Your task to perform on an android device: turn off location history Image 0: 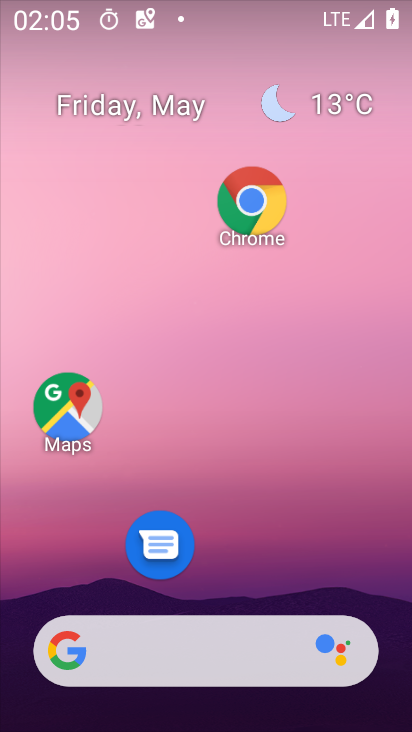
Step 0: drag from (241, 479) to (224, 14)
Your task to perform on an android device: turn off location history Image 1: 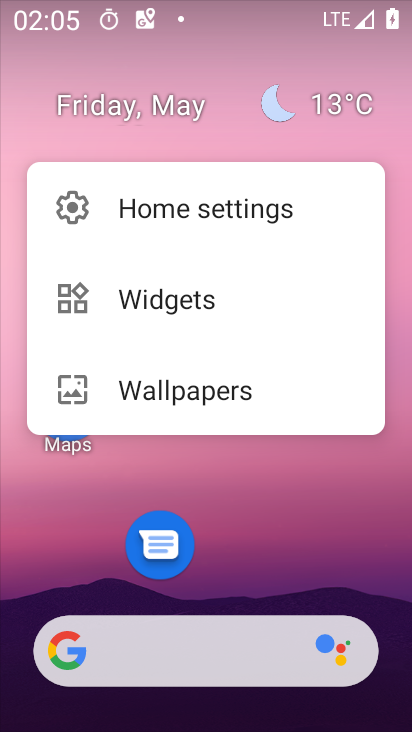
Step 1: click (210, 499)
Your task to perform on an android device: turn off location history Image 2: 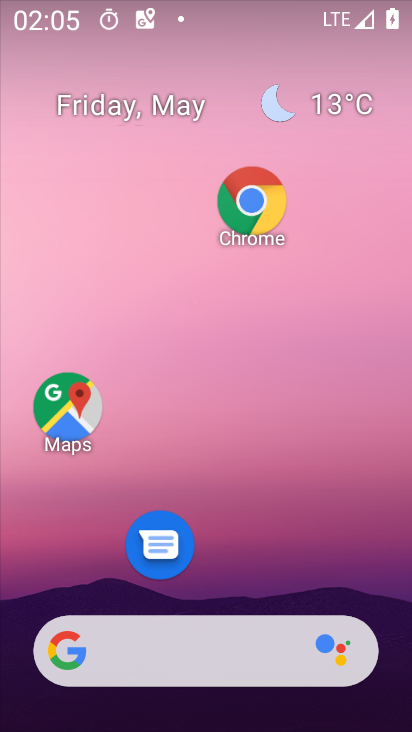
Step 2: drag from (229, 397) to (264, 140)
Your task to perform on an android device: turn off location history Image 3: 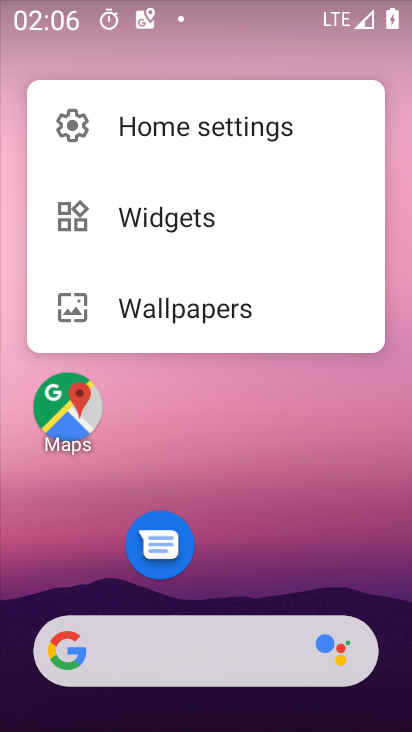
Step 3: click (265, 491)
Your task to perform on an android device: turn off location history Image 4: 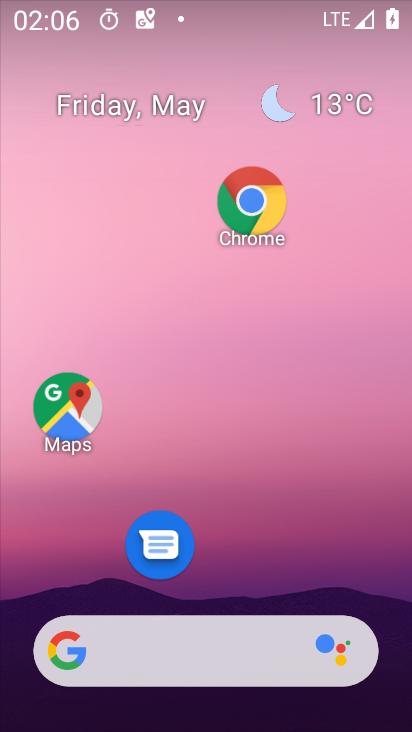
Step 4: drag from (237, 359) to (252, 179)
Your task to perform on an android device: turn off location history Image 5: 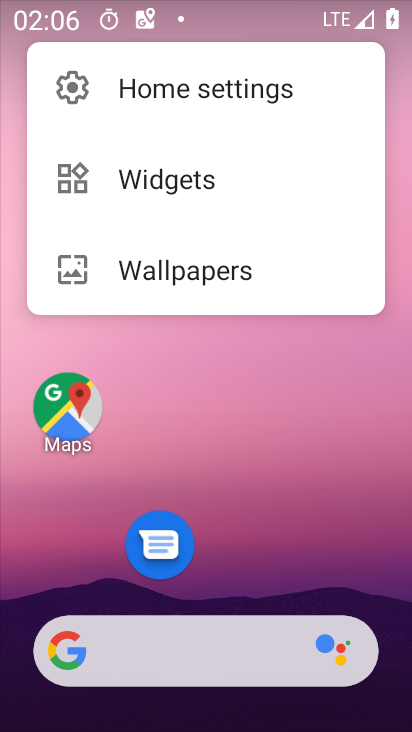
Step 5: click (248, 398)
Your task to perform on an android device: turn off location history Image 6: 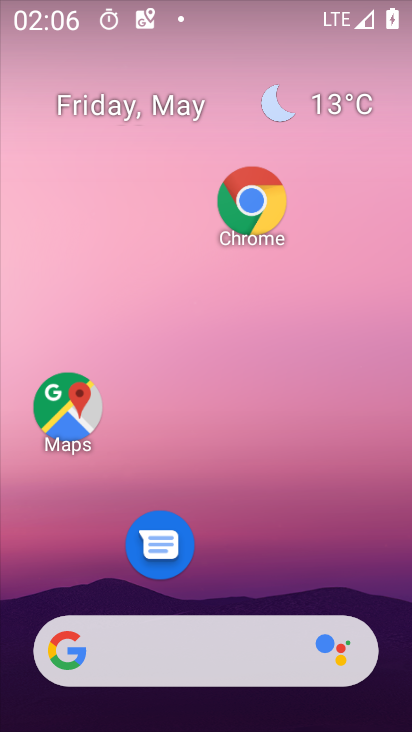
Step 6: click (189, 57)
Your task to perform on an android device: turn off location history Image 7: 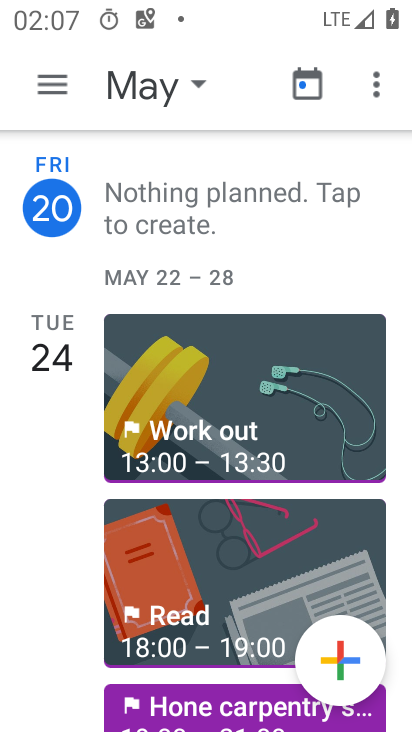
Step 7: press home button
Your task to perform on an android device: turn off location history Image 8: 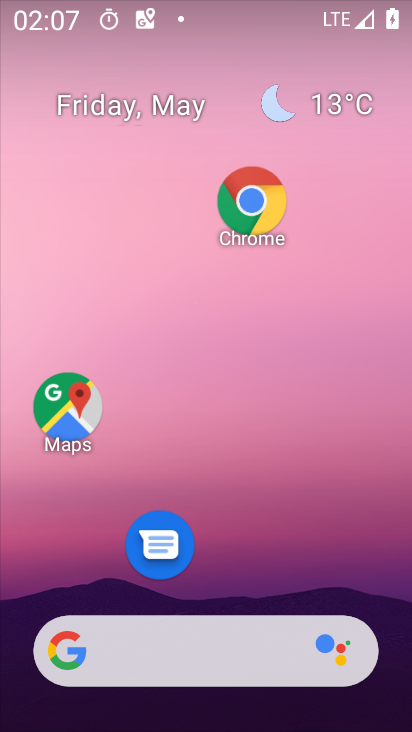
Step 8: drag from (260, 542) to (249, 106)
Your task to perform on an android device: turn off location history Image 9: 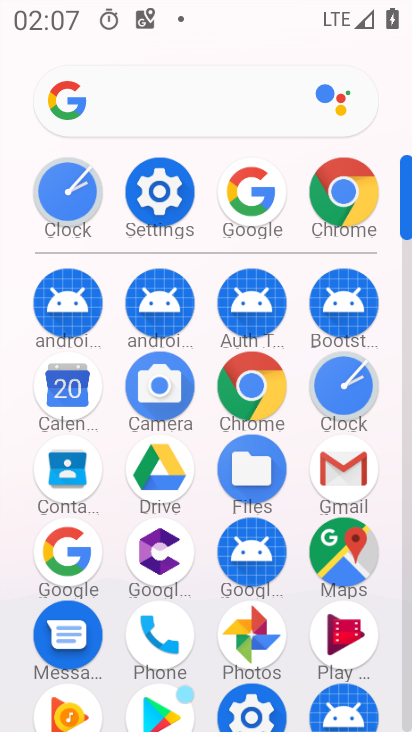
Step 9: click (155, 201)
Your task to perform on an android device: turn off location history Image 10: 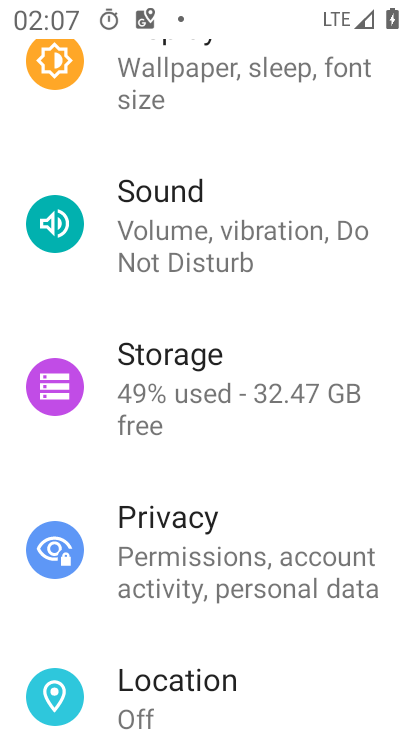
Step 10: drag from (207, 604) to (264, 307)
Your task to perform on an android device: turn off location history Image 11: 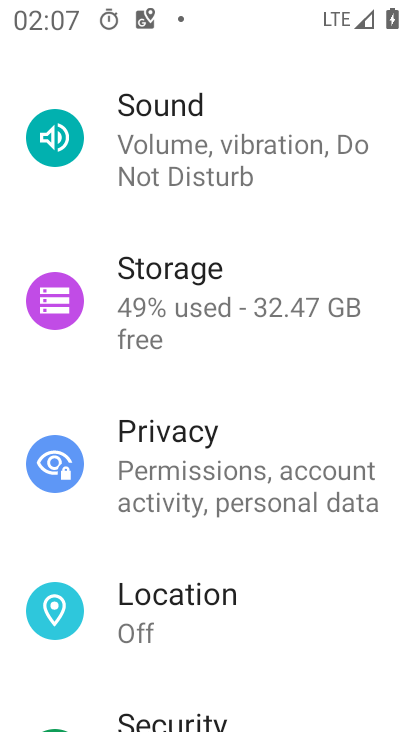
Step 11: click (159, 607)
Your task to perform on an android device: turn off location history Image 12: 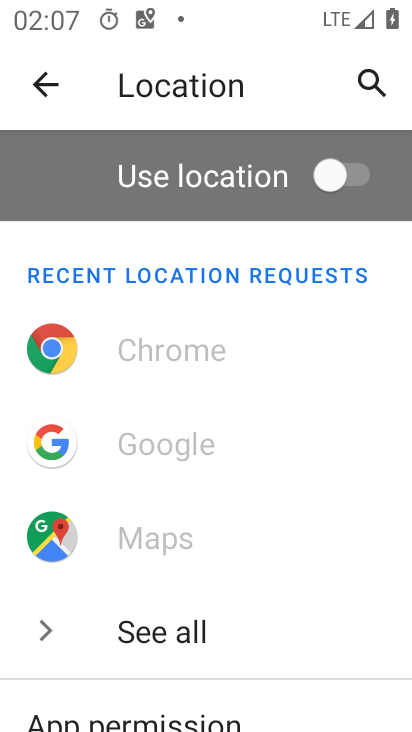
Step 12: drag from (223, 652) to (201, 335)
Your task to perform on an android device: turn off location history Image 13: 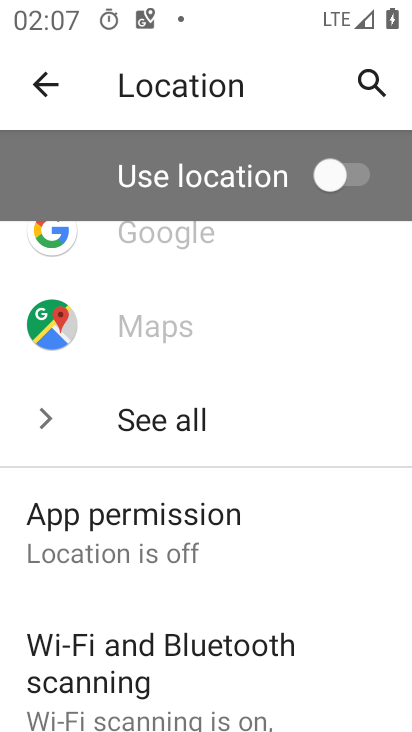
Step 13: drag from (167, 607) to (208, 457)
Your task to perform on an android device: turn off location history Image 14: 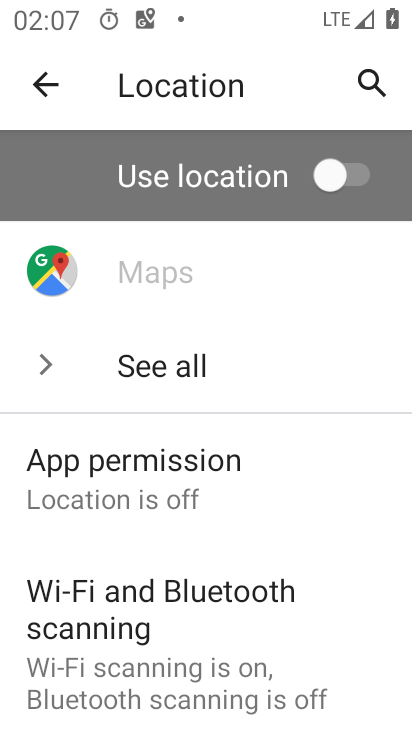
Step 14: drag from (203, 599) to (234, 400)
Your task to perform on an android device: turn off location history Image 15: 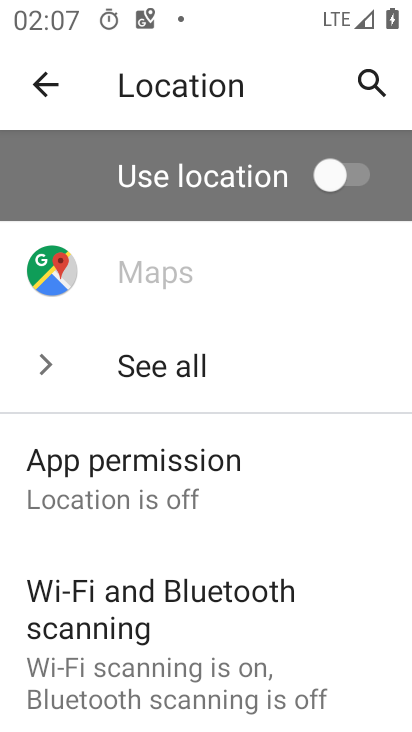
Step 15: drag from (213, 655) to (222, 394)
Your task to perform on an android device: turn off location history Image 16: 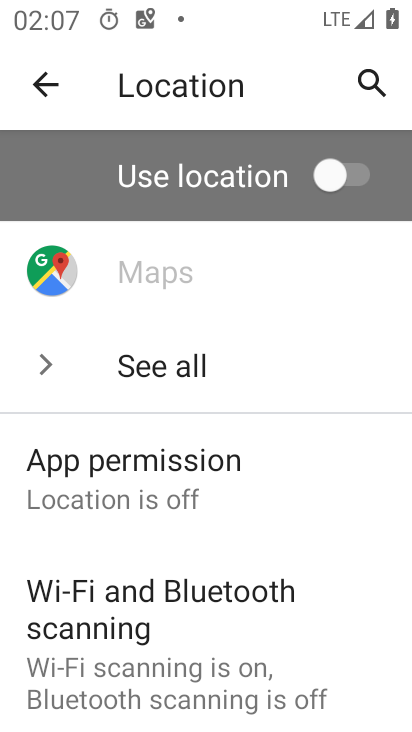
Step 16: drag from (238, 655) to (207, 414)
Your task to perform on an android device: turn off location history Image 17: 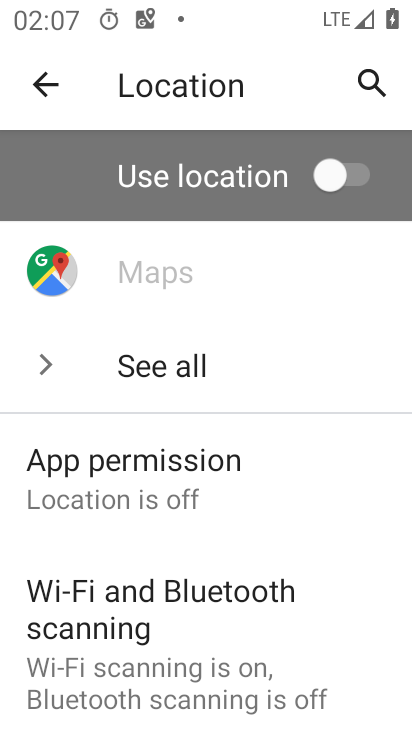
Step 17: drag from (137, 596) to (121, 434)
Your task to perform on an android device: turn off location history Image 18: 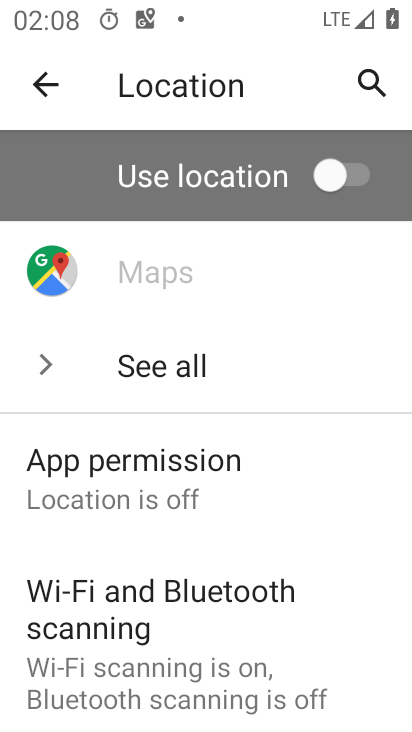
Step 18: drag from (167, 408) to (189, 278)
Your task to perform on an android device: turn off location history Image 19: 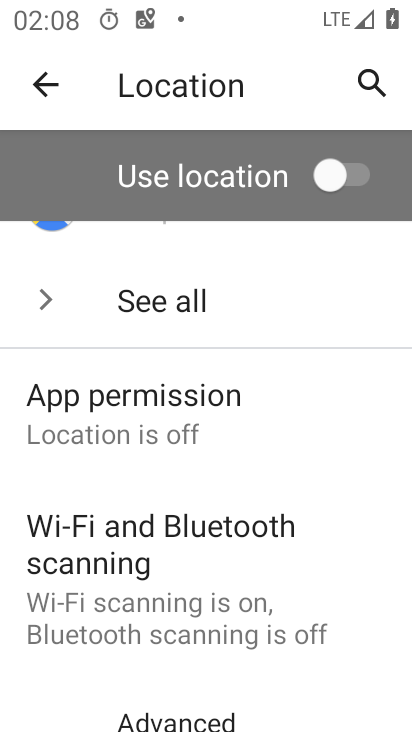
Step 19: click (200, 335)
Your task to perform on an android device: turn off location history Image 20: 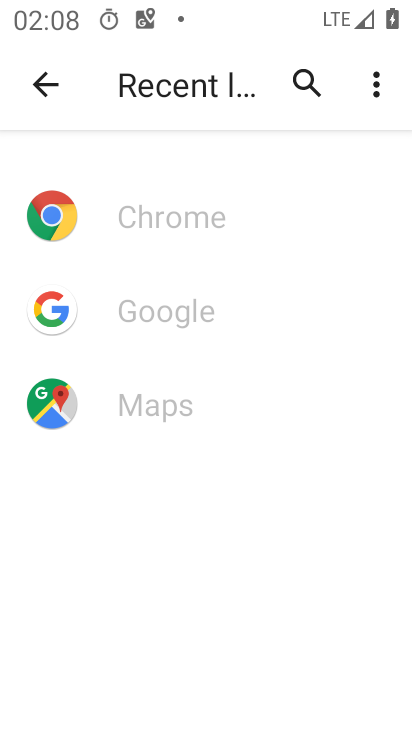
Step 20: click (49, 73)
Your task to perform on an android device: turn off location history Image 21: 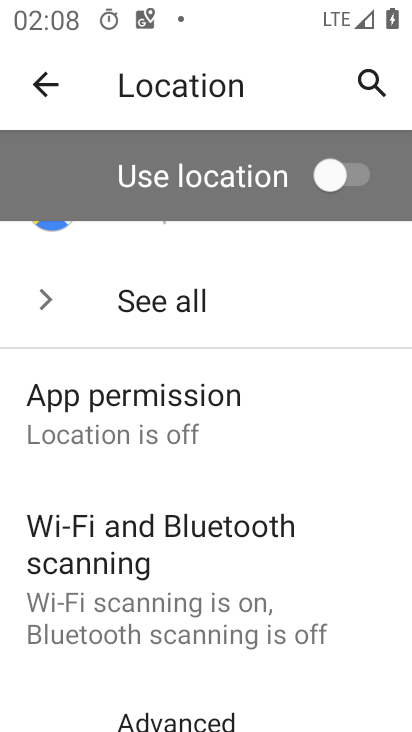
Step 21: click (207, 394)
Your task to perform on an android device: turn off location history Image 22: 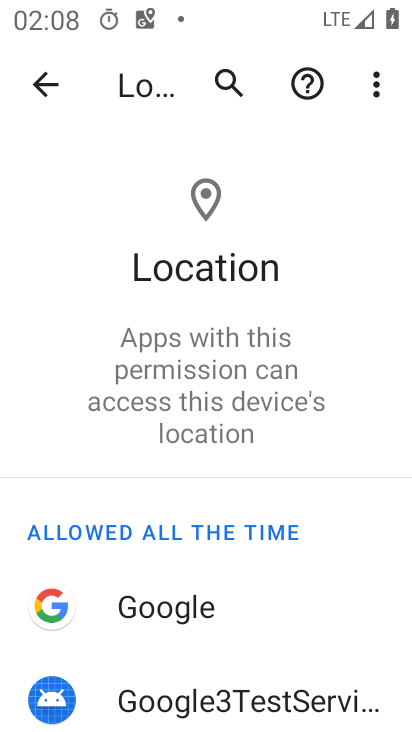
Step 22: click (66, 96)
Your task to perform on an android device: turn off location history Image 23: 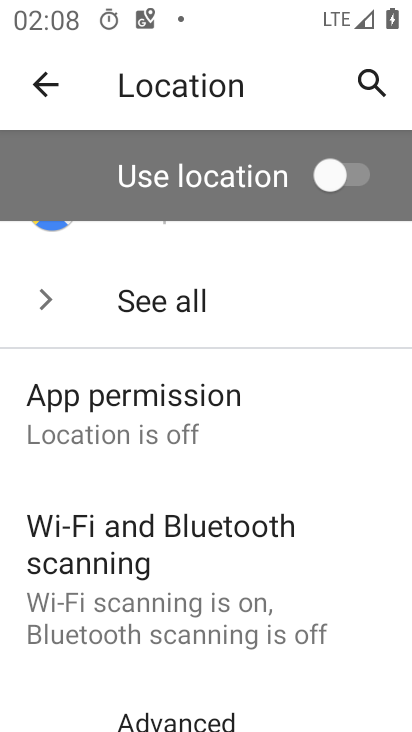
Step 23: drag from (189, 563) to (225, 348)
Your task to perform on an android device: turn off location history Image 24: 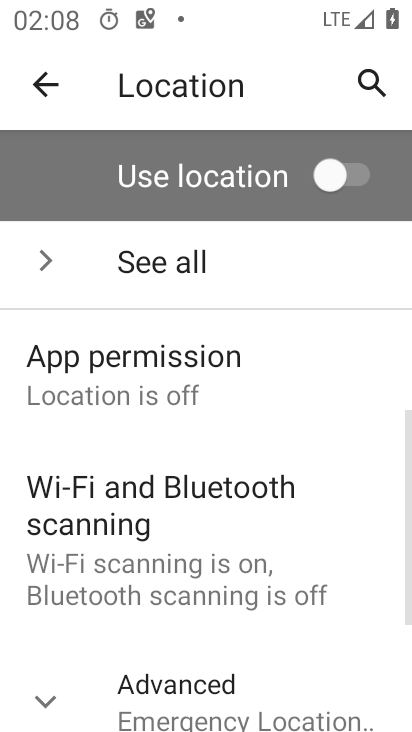
Step 24: click (175, 714)
Your task to perform on an android device: turn off location history Image 25: 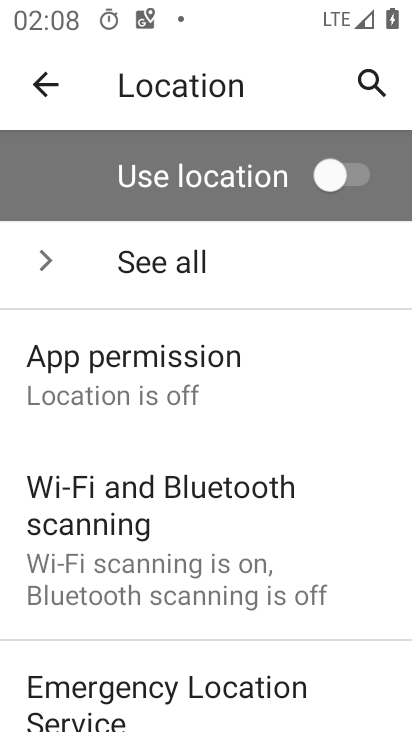
Step 25: drag from (181, 576) to (164, 391)
Your task to perform on an android device: turn off location history Image 26: 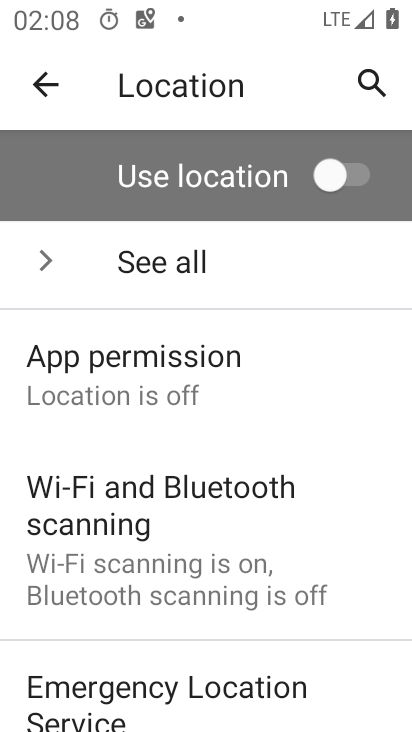
Step 26: drag from (155, 446) to (147, 368)
Your task to perform on an android device: turn off location history Image 27: 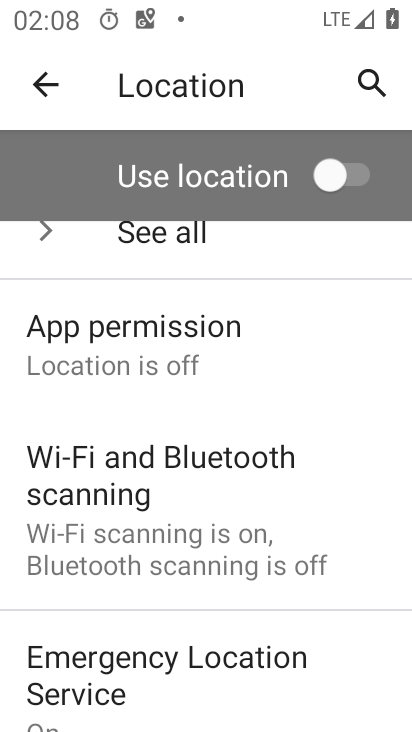
Step 27: drag from (144, 610) to (128, 344)
Your task to perform on an android device: turn off location history Image 28: 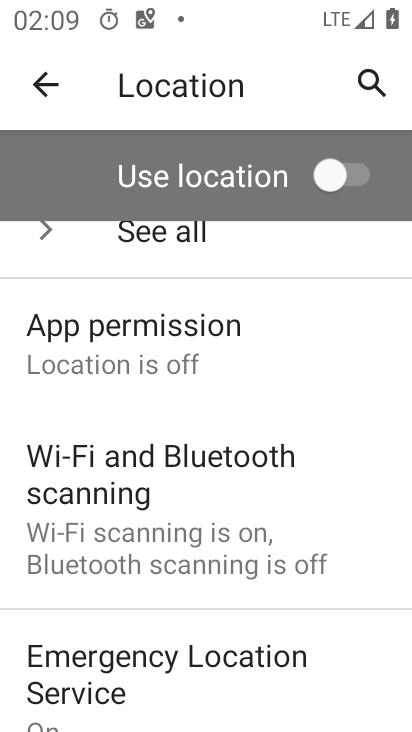
Step 28: click (215, 372)
Your task to perform on an android device: turn off location history Image 29: 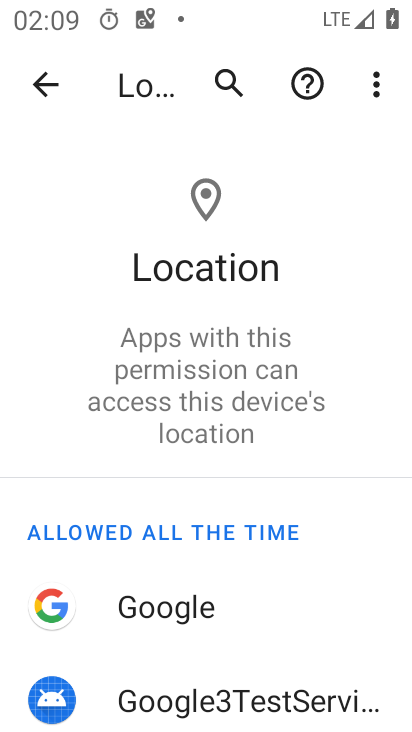
Step 29: click (35, 76)
Your task to perform on an android device: turn off location history Image 30: 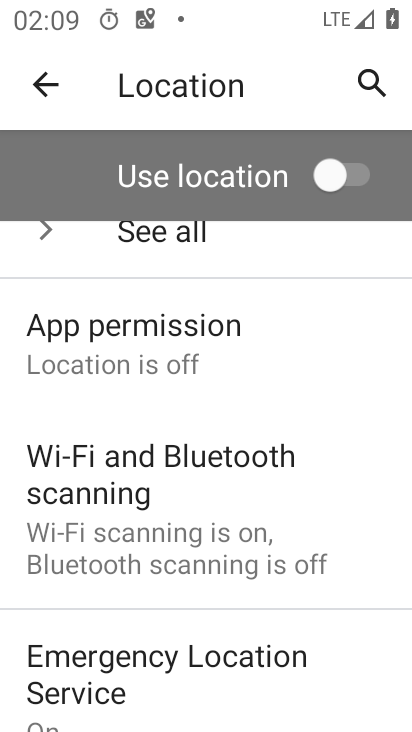
Step 30: drag from (114, 441) to (156, 236)
Your task to perform on an android device: turn off location history Image 31: 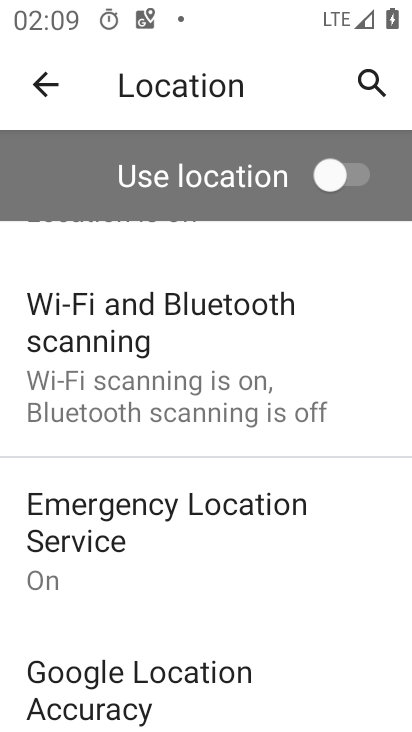
Step 31: drag from (130, 641) to (176, 512)
Your task to perform on an android device: turn off location history Image 32: 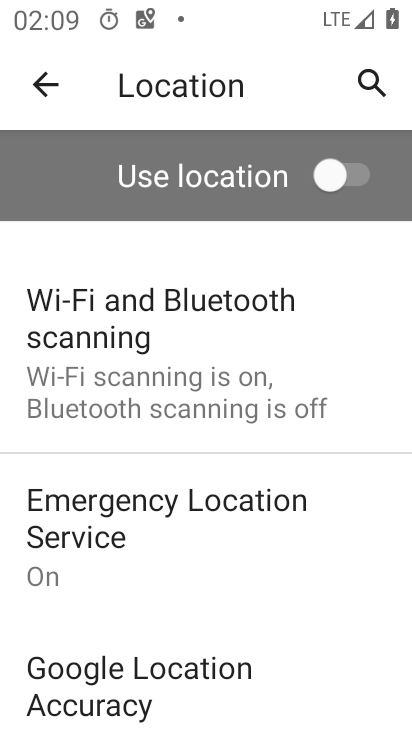
Step 32: drag from (158, 674) to (272, 180)
Your task to perform on an android device: turn off location history Image 33: 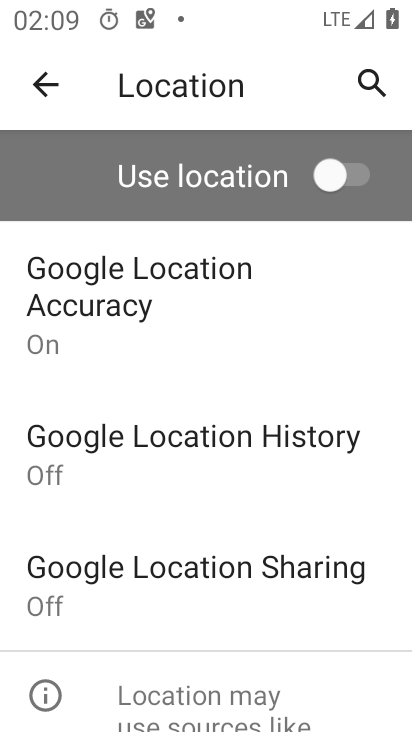
Step 33: click (201, 467)
Your task to perform on an android device: turn off location history Image 34: 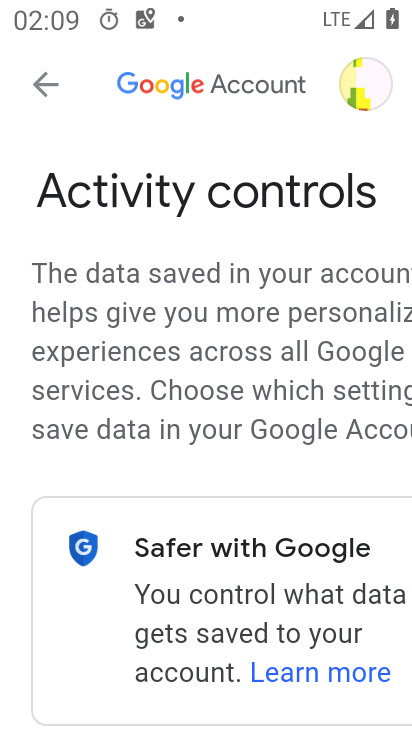
Step 34: drag from (177, 360) to (176, 176)
Your task to perform on an android device: turn off location history Image 35: 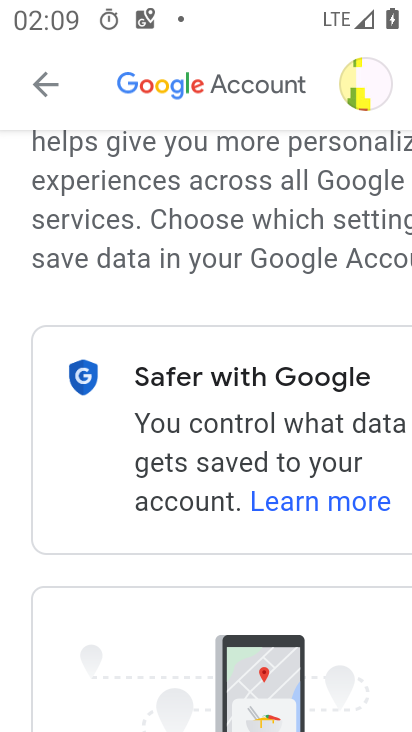
Step 35: drag from (195, 572) to (201, 296)
Your task to perform on an android device: turn off location history Image 36: 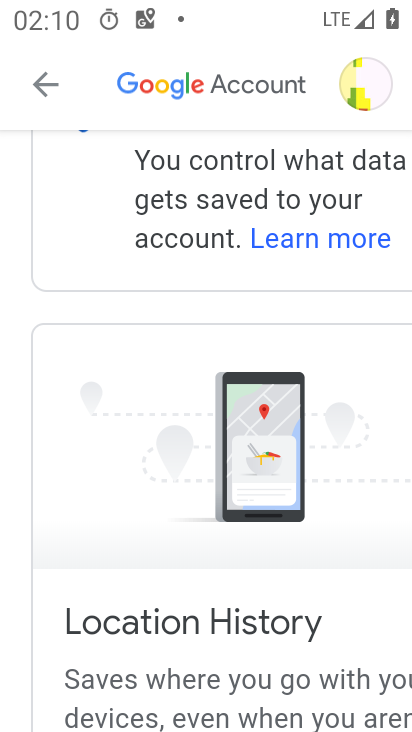
Step 36: click (171, 204)
Your task to perform on an android device: turn off location history Image 37: 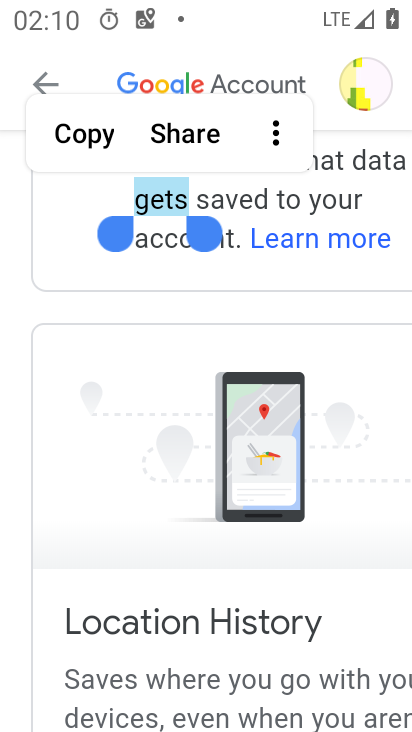
Step 37: drag from (212, 539) to (231, 333)
Your task to perform on an android device: turn off location history Image 38: 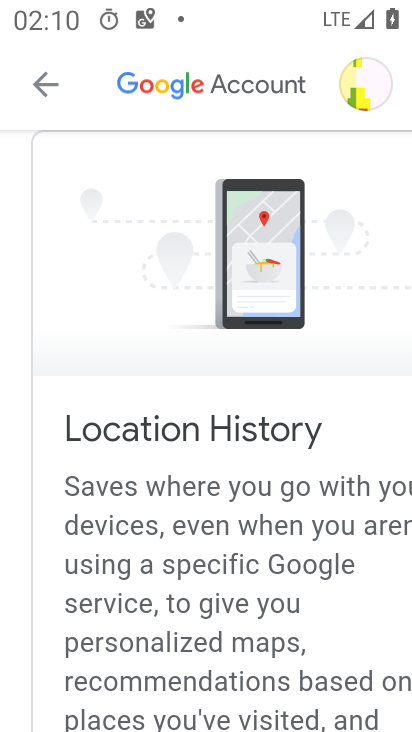
Step 38: drag from (146, 513) to (122, 297)
Your task to perform on an android device: turn off location history Image 39: 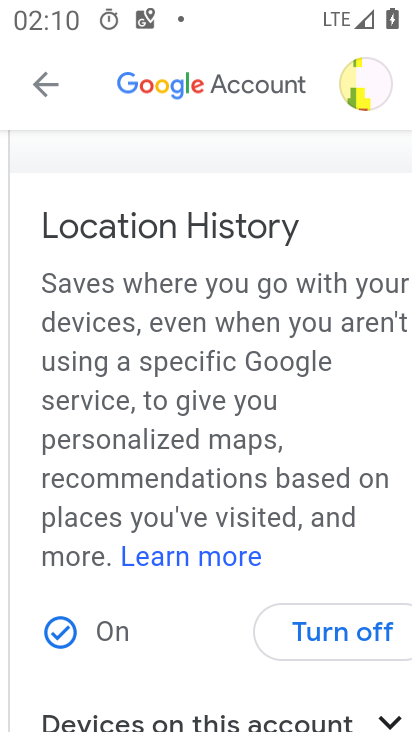
Step 39: click (304, 633)
Your task to perform on an android device: turn off location history Image 40: 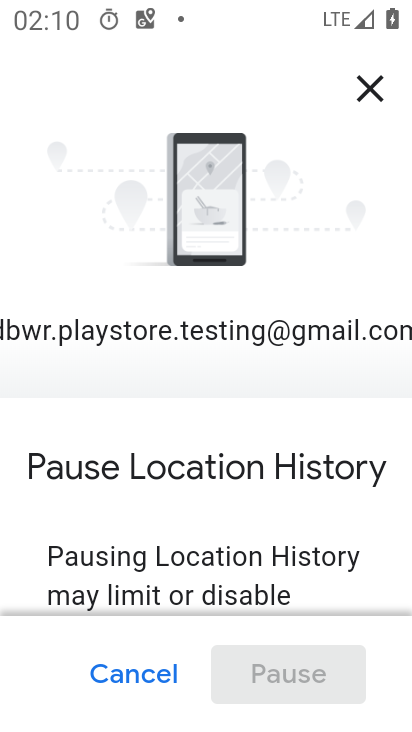
Step 40: drag from (317, 581) to (223, 135)
Your task to perform on an android device: turn off location history Image 41: 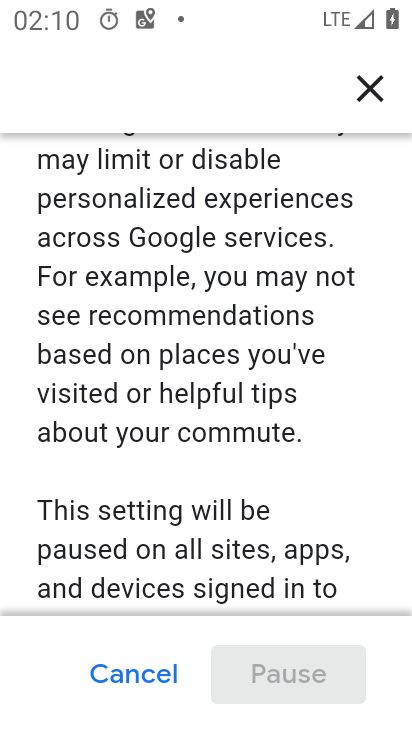
Step 41: drag from (193, 555) to (170, 141)
Your task to perform on an android device: turn off location history Image 42: 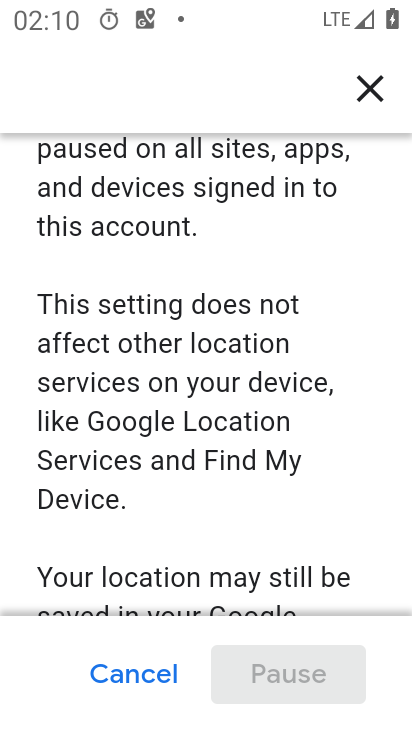
Step 42: drag from (156, 408) to (149, 215)
Your task to perform on an android device: turn off location history Image 43: 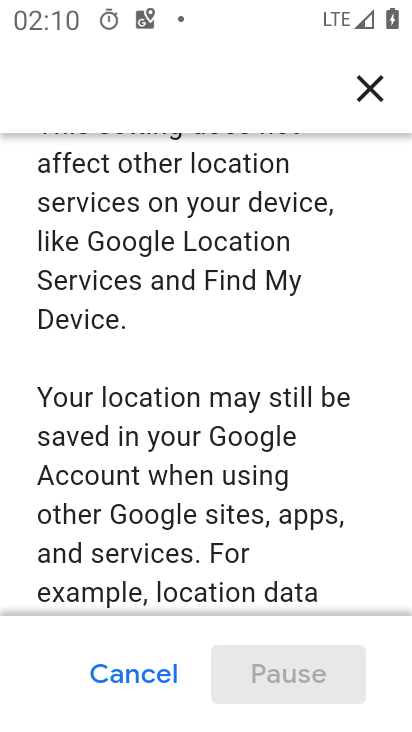
Step 43: drag from (160, 513) to (157, 276)
Your task to perform on an android device: turn off location history Image 44: 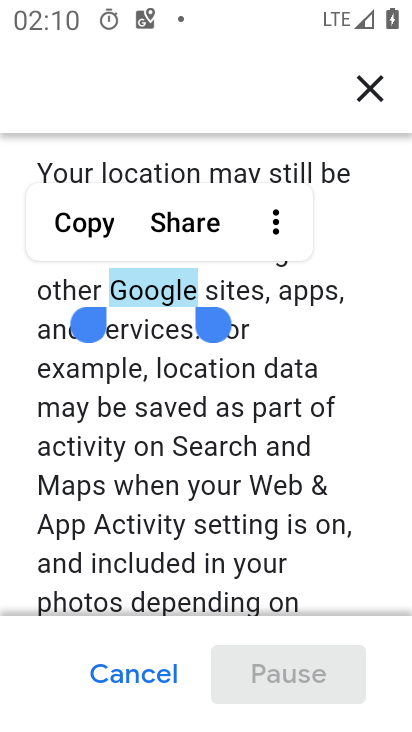
Step 44: drag from (201, 517) to (190, 227)
Your task to perform on an android device: turn off location history Image 45: 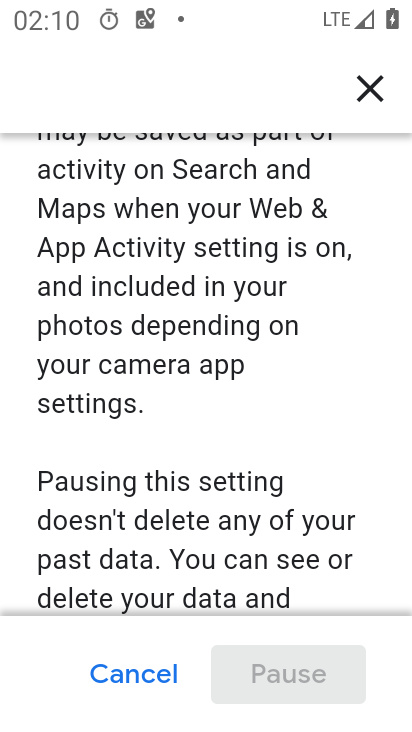
Step 45: drag from (214, 539) to (143, 14)
Your task to perform on an android device: turn off location history Image 46: 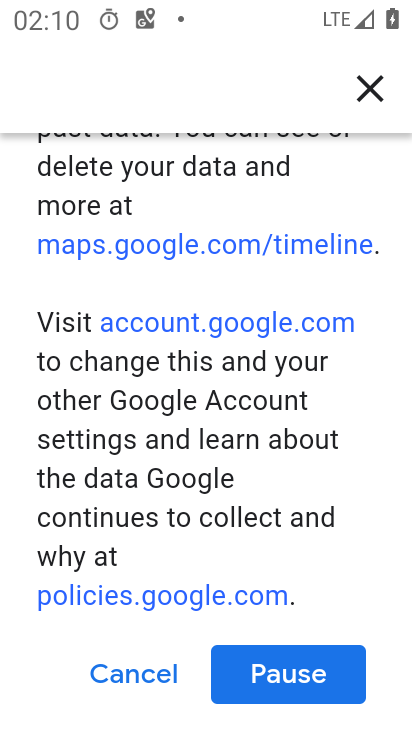
Step 46: click (284, 690)
Your task to perform on an android device: turn off location history Image 47: 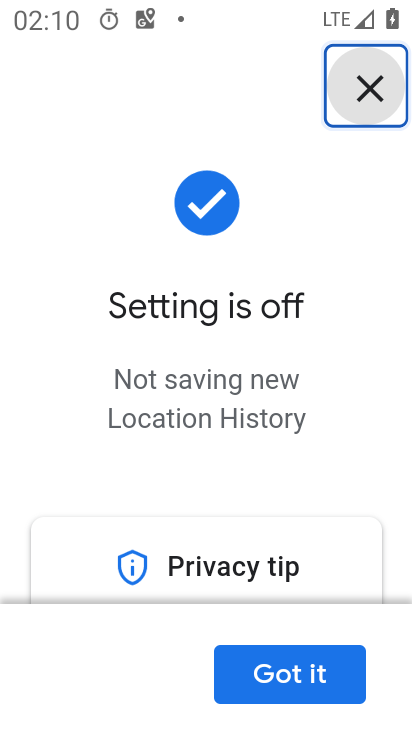
Step 47: click (274, 690)
Your task to perform on an android device: turn off location history Image 48: 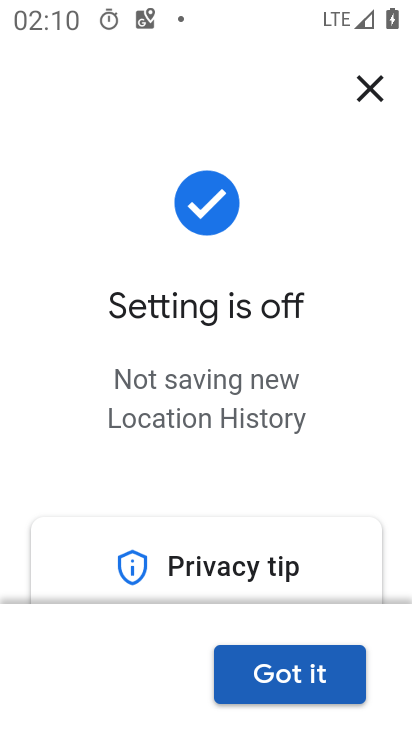
Step 48: click (271, 690)
Your task to perform on an android device: turn off location history Image 49: 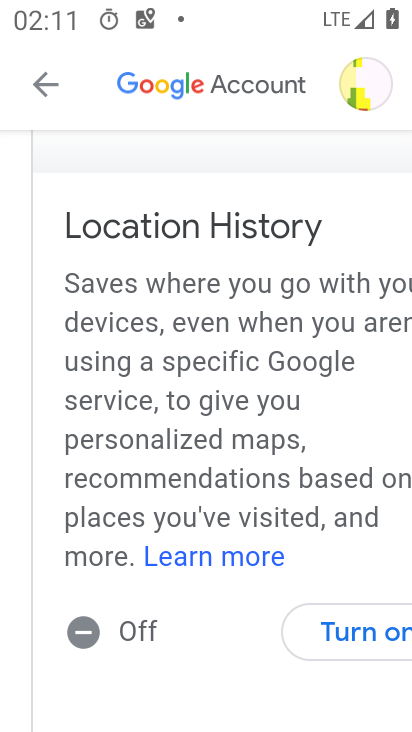
Step 49: task complete